Your task to perform on an android device: open the mobile data screen to see how much data has been used Image 0: 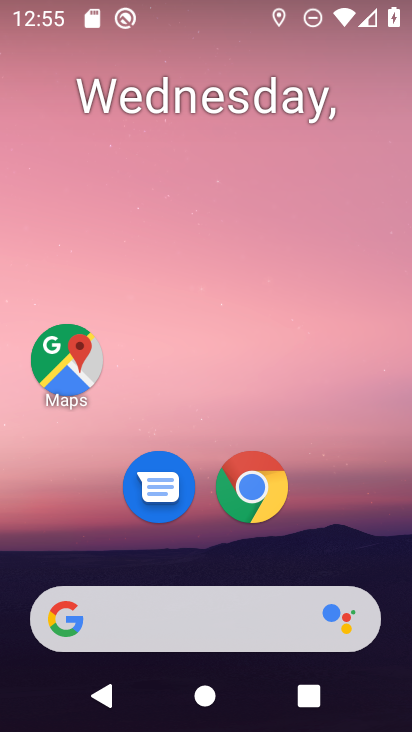
Step 0: drag from (379, 530) to (319, 59)
Your task to perform on an android device: open the mobile data screen to see how much data has been used Image 1: 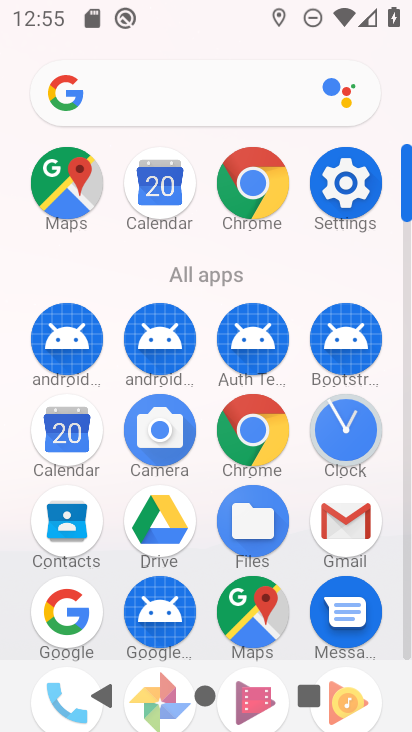
Step 1: click (366, 198)
Your task to perform on an android device: open the mobile data screen to see how much data has been used Image 2: 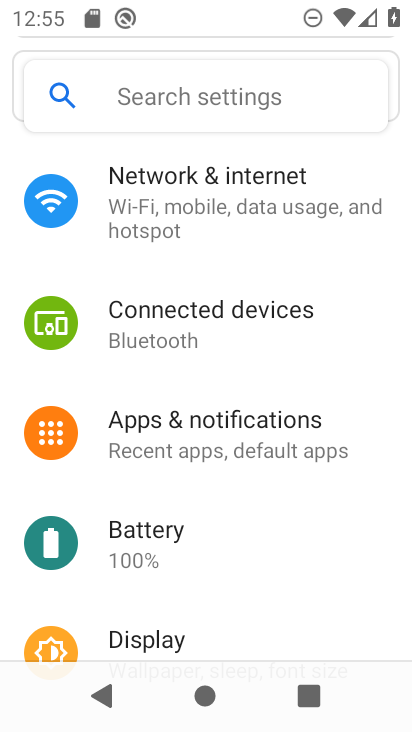
Step 2: click (306, 191)
Your task to perform on an android device: open the mobile data screen to see how much data has been used Image 3: 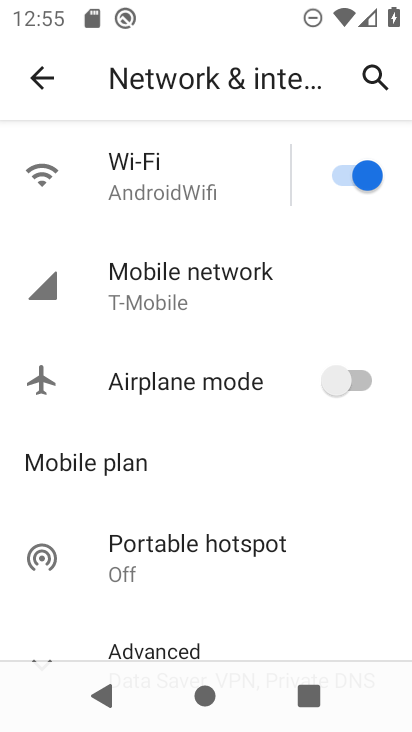
Step 3: drag from (323, 507) to (328, 419)
Your task to perform on an android device: open the mobile data screen to see how much data has been used Image 4: 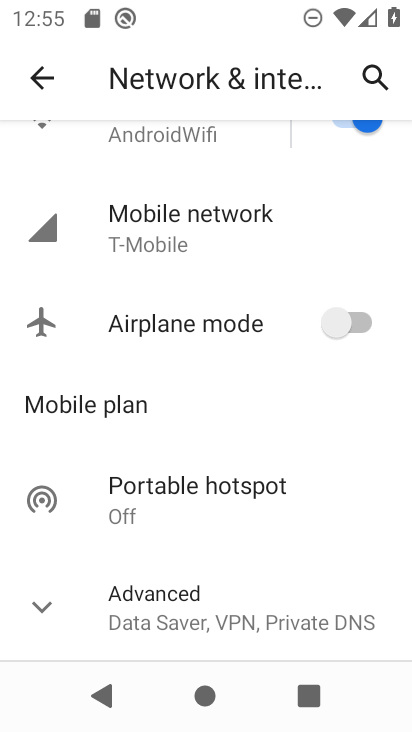
Step 4: drag from (328, 527) to (335, 462)
Your task to perform on an android device: open the mobile data screen to see how much data has been used Image 5: 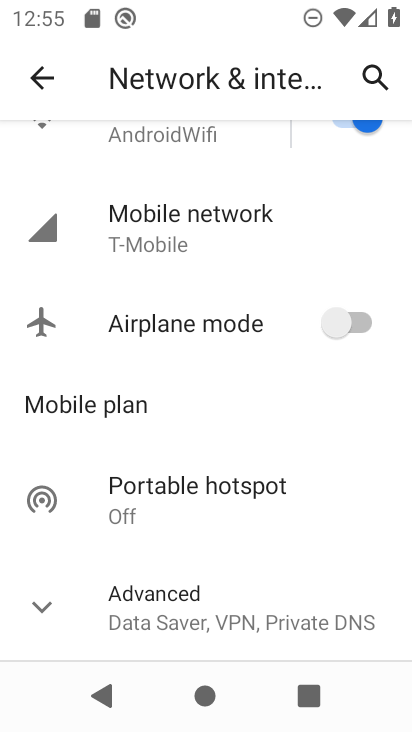
Step 5: drag from (276, 266) to (276, 399)
Your task to perform on an android device: open the mobile data screen to see how much data has been used Image 6: 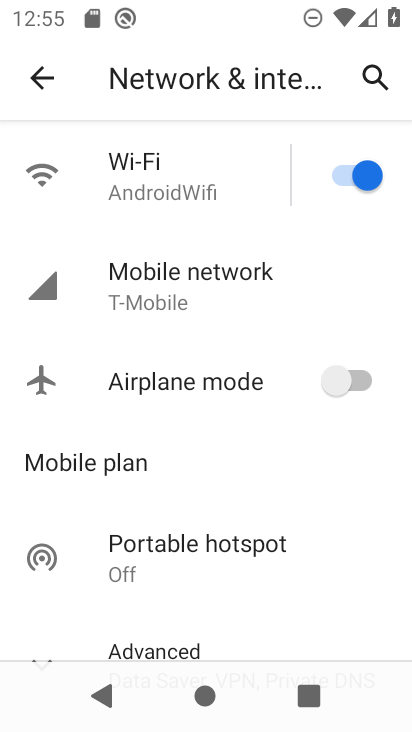
Step 6: click (251, 296)
Your task to perform on an android device: open the mobile data screen to see how much data has been used Image 7: 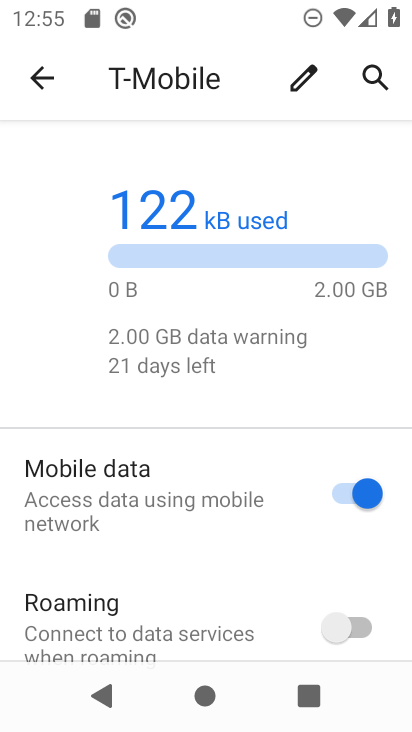
Step 7: drag from (280, 558) to (282, 473)
Your task to perform on an android device: open the mobile data screen to see how much data has been used Image 8: 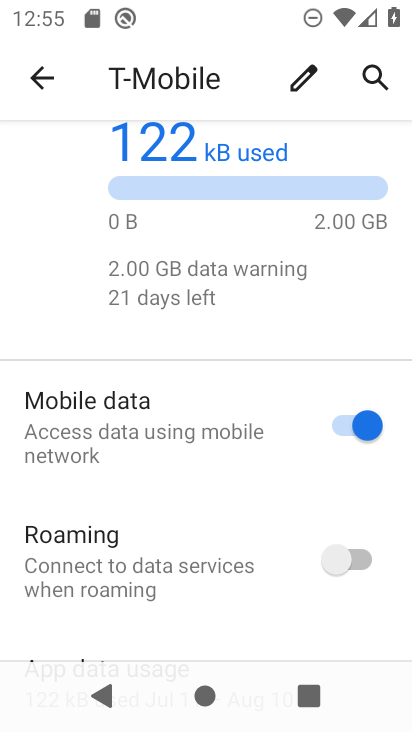
Step 8: drag from (290, 614) to (286, 531)
Your task to perform on an android device: open the mobile data screen to see how much data has been used Image 9: 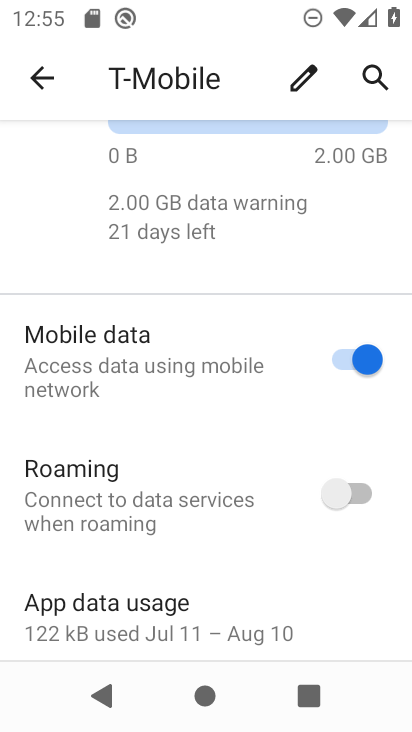
Step 9: drag from (273, 559) to (275, 482)
Your task to perform on an android device: open the mobile data screen to see how much data has been used Image 10: 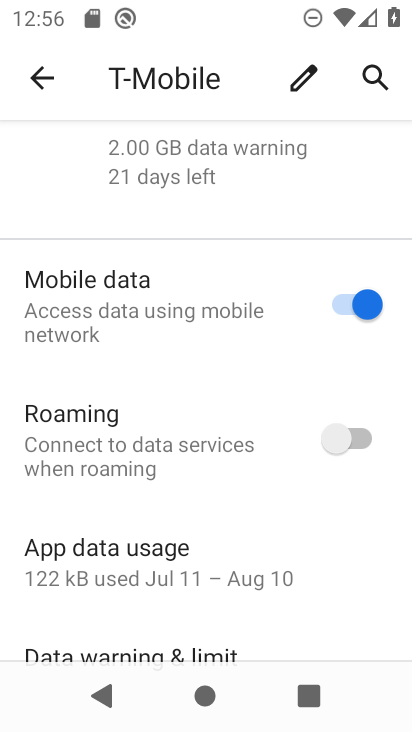
Step 10: click (214, 551)
Your task to perform on an android device: open the mobile data screen to see how much data has been used Image 11: 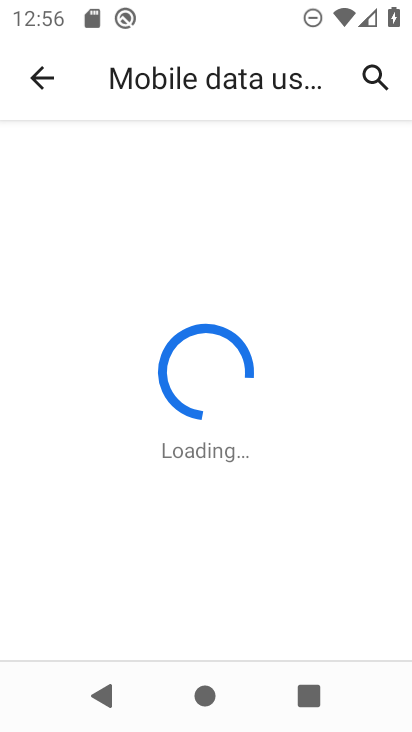
Step 11: task complete